Your task to perform on an android device: open sync settings in chrome Image 0: 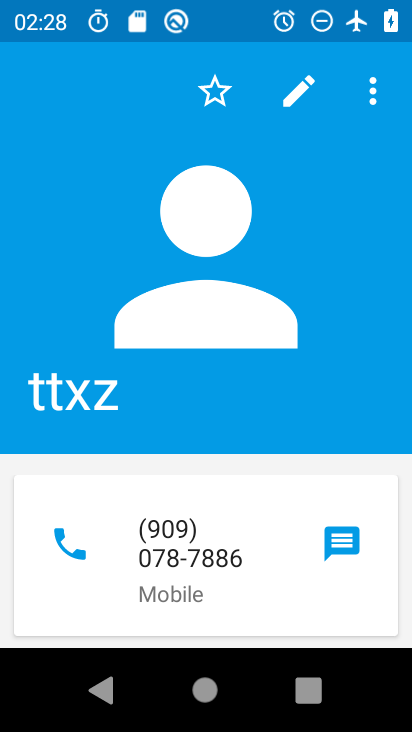
Step 0: press home button
Your task to perform on an android device: open sync settings in chrome Image 1: 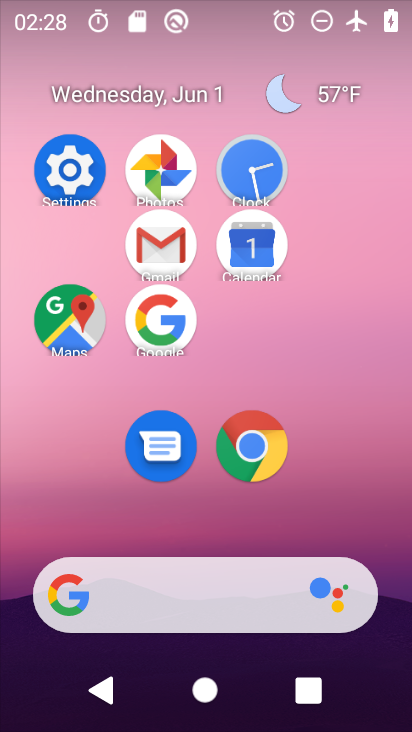
Step 1: click (263, 462)
Your task to perform on an android device: open sync settings in chrome Image 2: 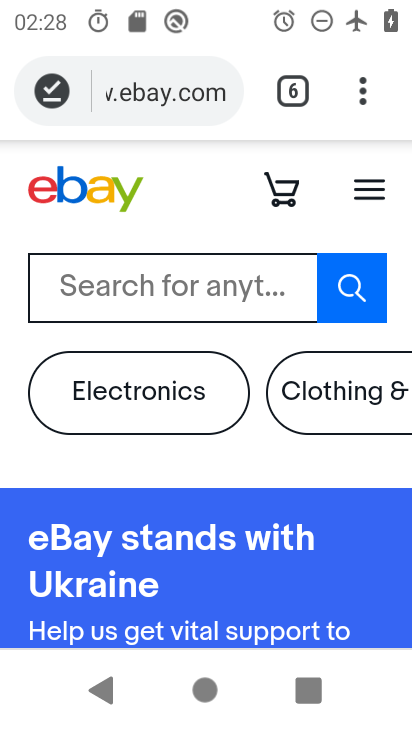
Step 2: click (366, 97)
Your task to perform on an android device: open sync settings in chrome Image 3: 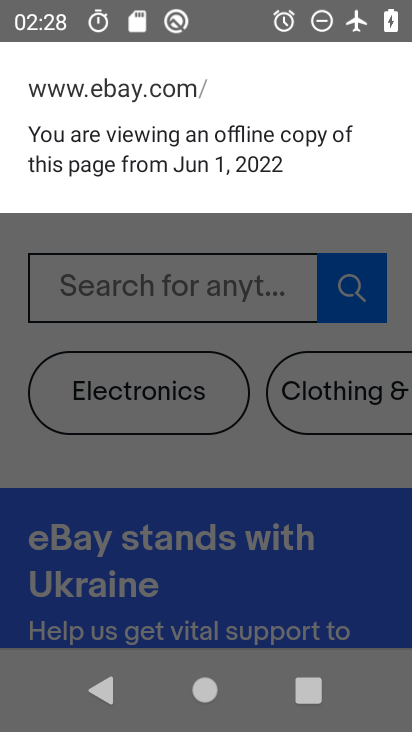
Step 3: click (358, 699)
Your task to perform on an android device: open sync settings in chrome Image 4: 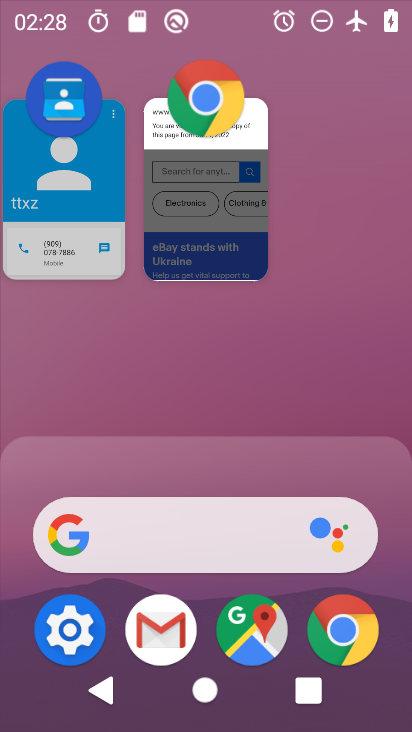
Step 4: click (248, 226)
Your task to perform on an android device: open sync settings in chrome Image 5: 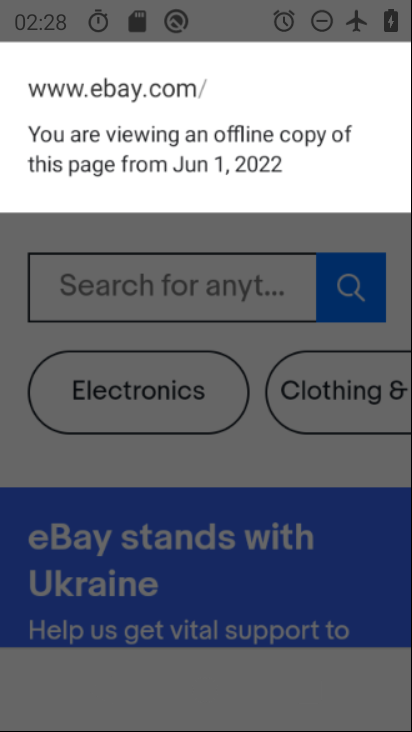
Step 5: click (358, 116)
Your task to perform on an android device: open sync settings in chrome Image 6: 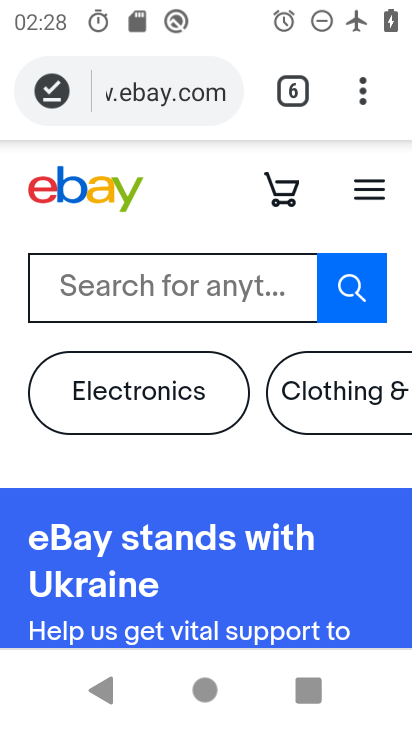
Step 6: click (369, 83)
Your task to perform on an android device: open sync settings in chrome Image 7: 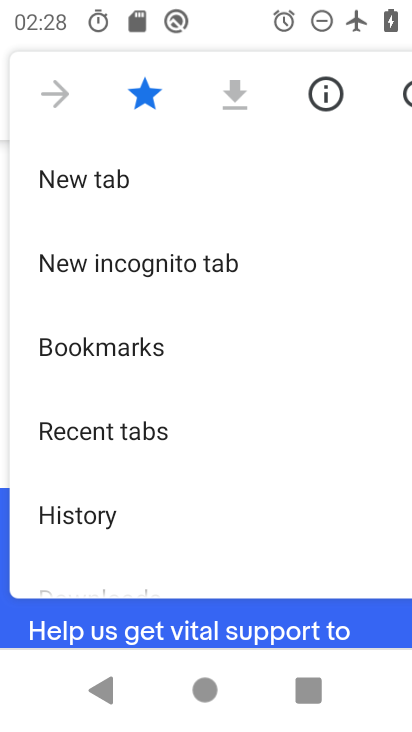
Step 7: drag from (364, 456) to (321, 80)
Your task to perform on an android device: open sync settings in chrome Image 8: 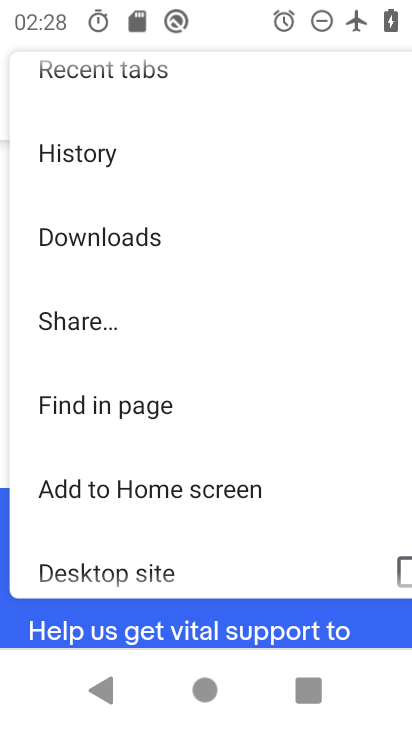
Step 8: drag from (191, 506) to (185, 138)
Your task to perform on an android device: open sync settings in chrome Image 9: 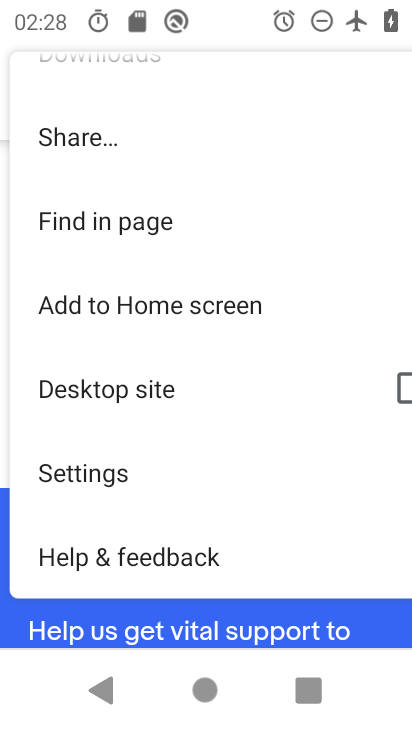
Step 9: click (120, 477)
Your task to perform on an android device: open sync settings in chrome Image 10: 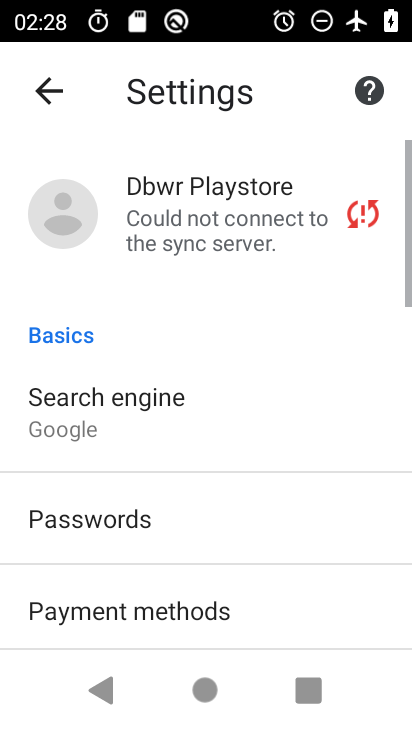
Step 10: drag from (130, 453) to (186, 109)
Your task to perform on an android device: open sync settings in chrome Image 11: 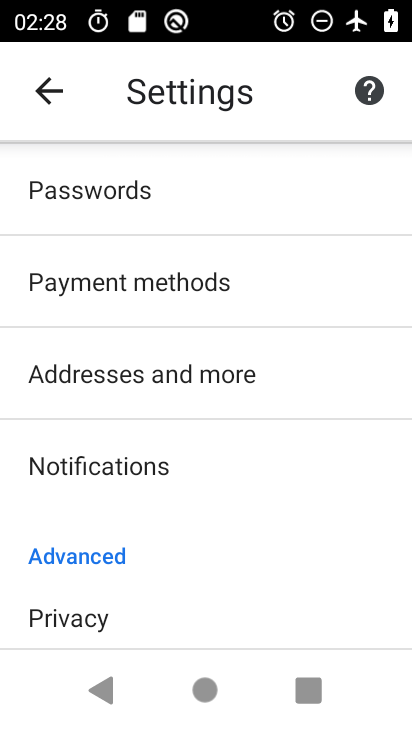
Step 11: drag from (183, 515) to (208, 146)
Your task to perform on an android device: open sync settings in chrome Image 12: 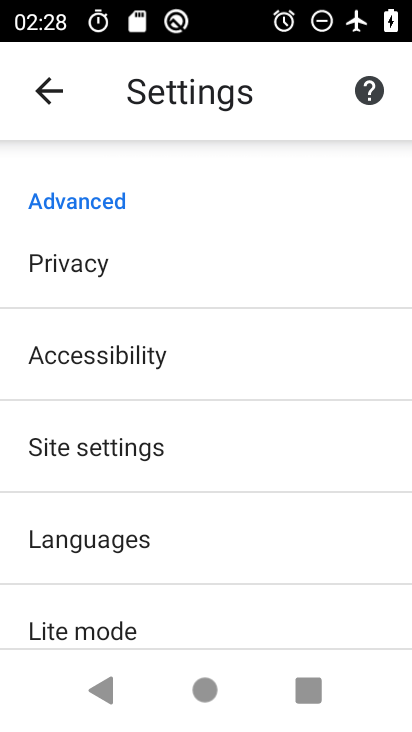
Step 12: drag from (272, 534) to (270, 150)
Your task to perform on an android device: open sync settings in chrome Image 13: 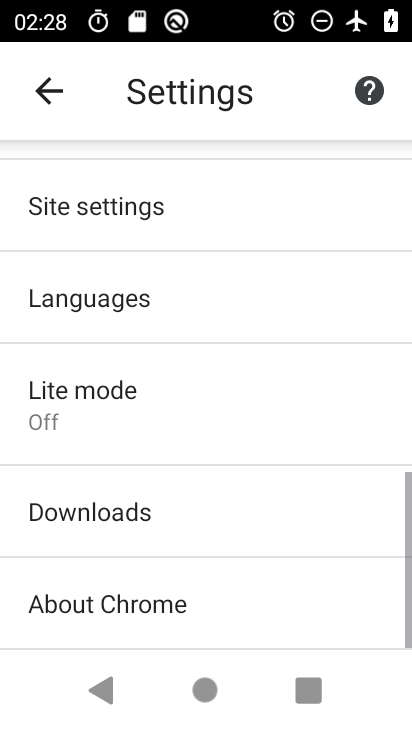
Step 13: drag from (211, 528) to (253, 167)
Your task to perform on an android device: open sync settings in chrome Image 14: 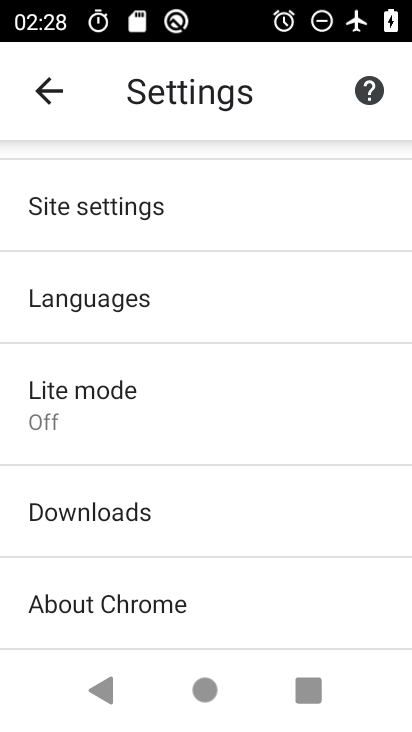
Step 14: click (259, 199)
Your task to perform on an android device: open sync settings in chrome Image 15: 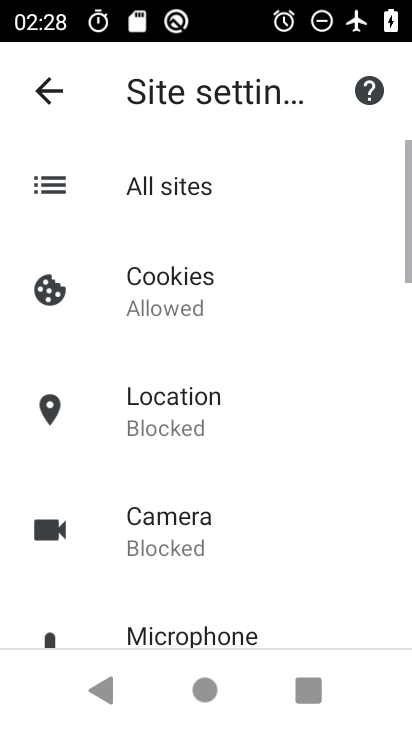
Step 15: drag from (227, 601) to (260, 194)
Your task to perform on an android device: open sync settings in chrome Image 16: 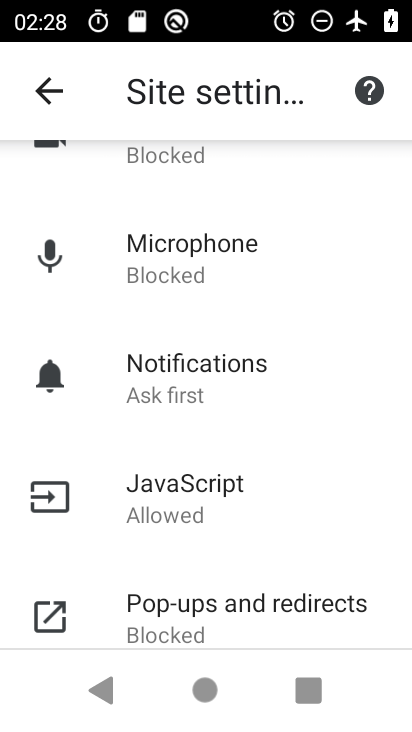
Step 16: drag from (221, 585) to (248, 207)
Your task to perform on an android device: open sync settings in chrome Image 17: 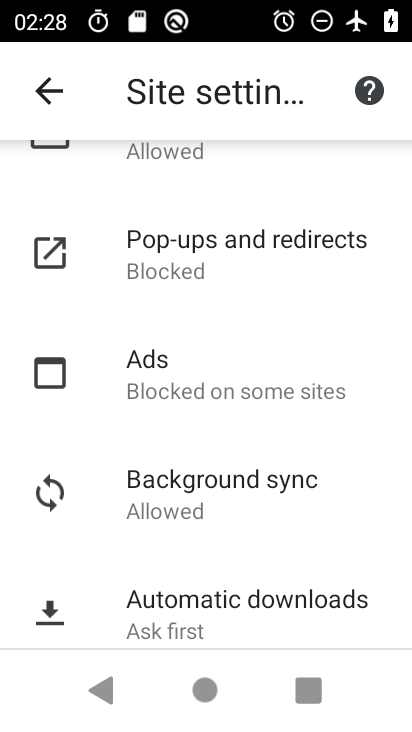
Step 17: click (235, 516)
Your task to perform on an android device: open sync settings in chrome Image 18: 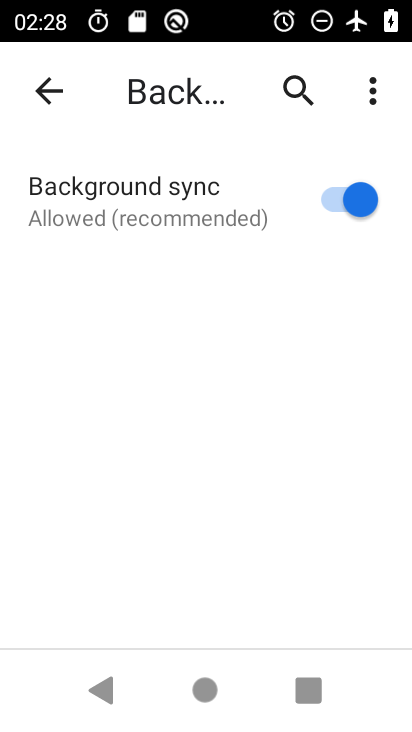
Step 18: task complete